Your task to perform on an android device: empty trash in the gmail app Image 0: 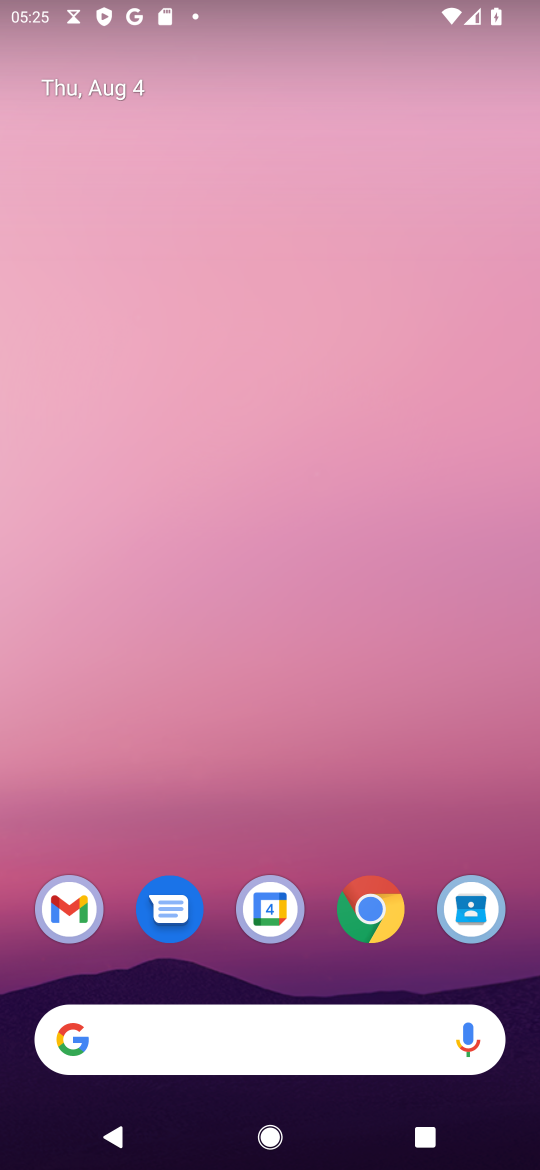
Step 0: click (67, 909)
Your task to perform on an android device: empty trash in the gmail app Image 1: 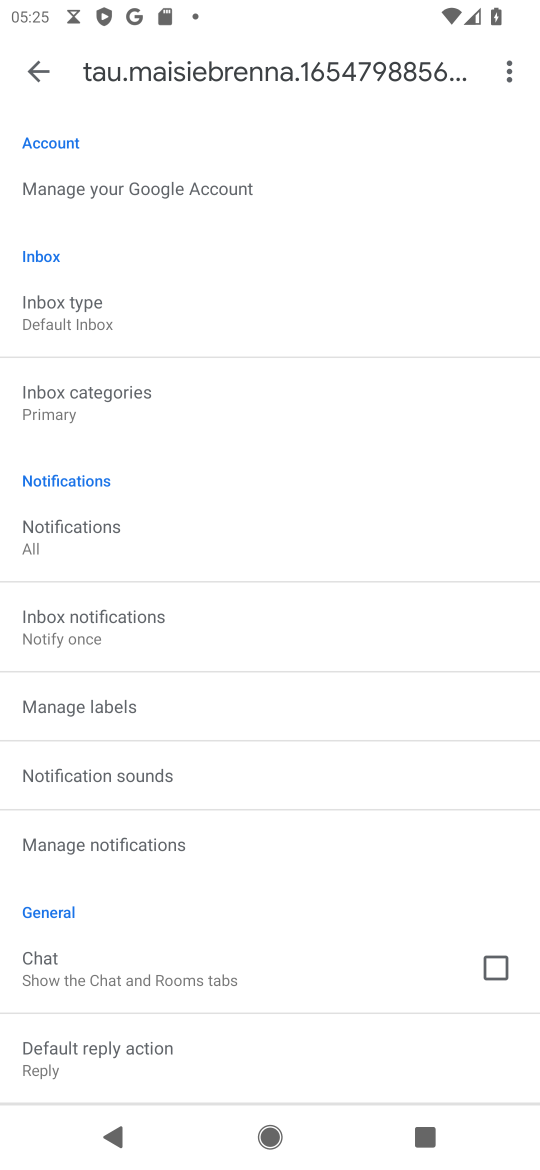
Step 1: click (49, 69)
Your task to perform on an android device: empty trash in the gmail app Image 2: 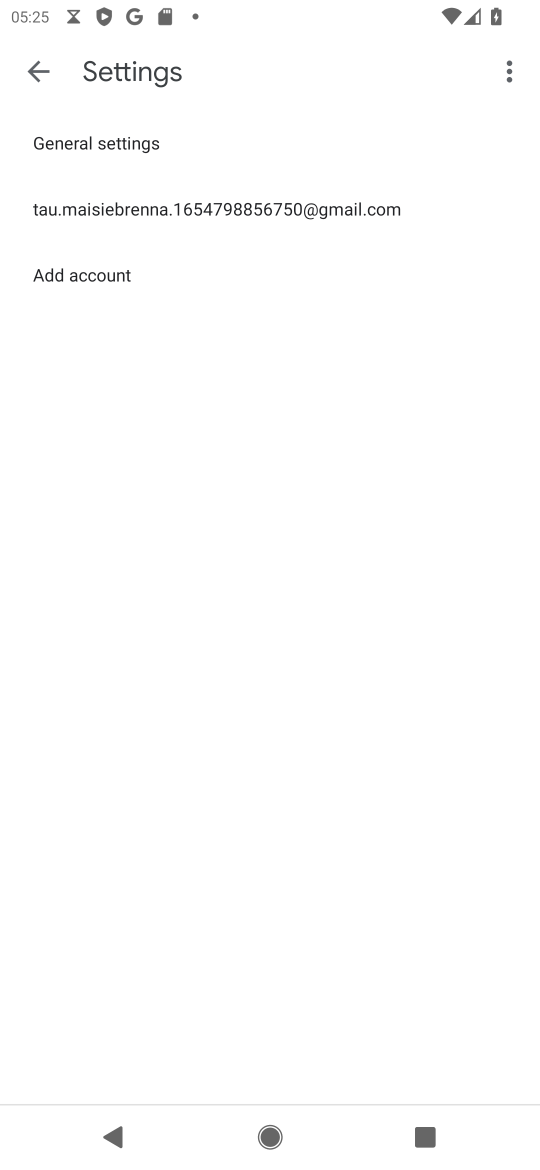
Step 2: click (48, 69)
Your task to perform on an android device: empty trash in the gmail app Image 3: 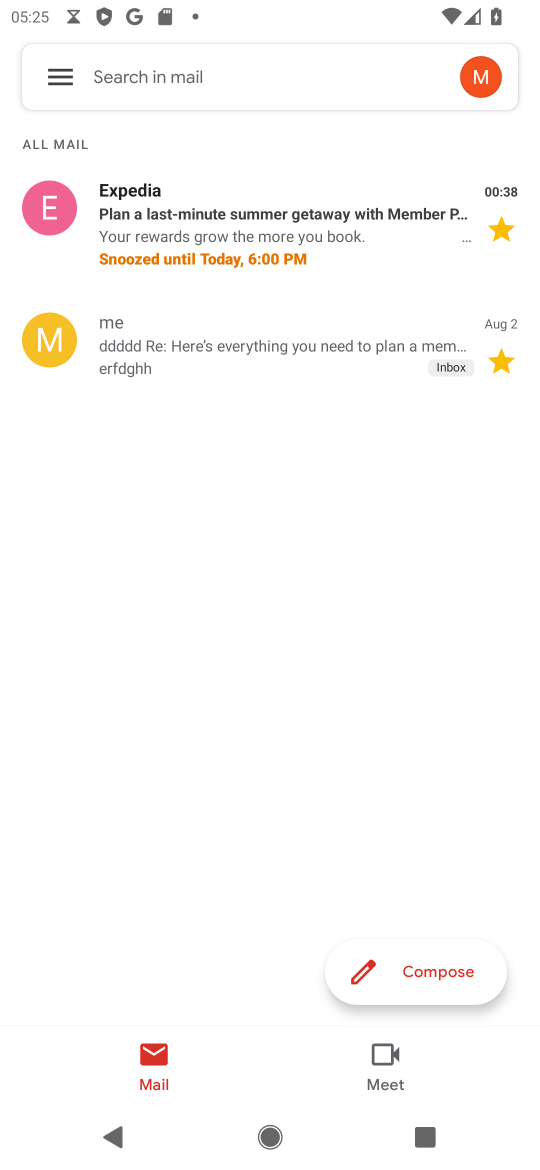
Step 3: click (48, 66)
Your task to perform on an android device: empty trash in the gmail app Image 4: 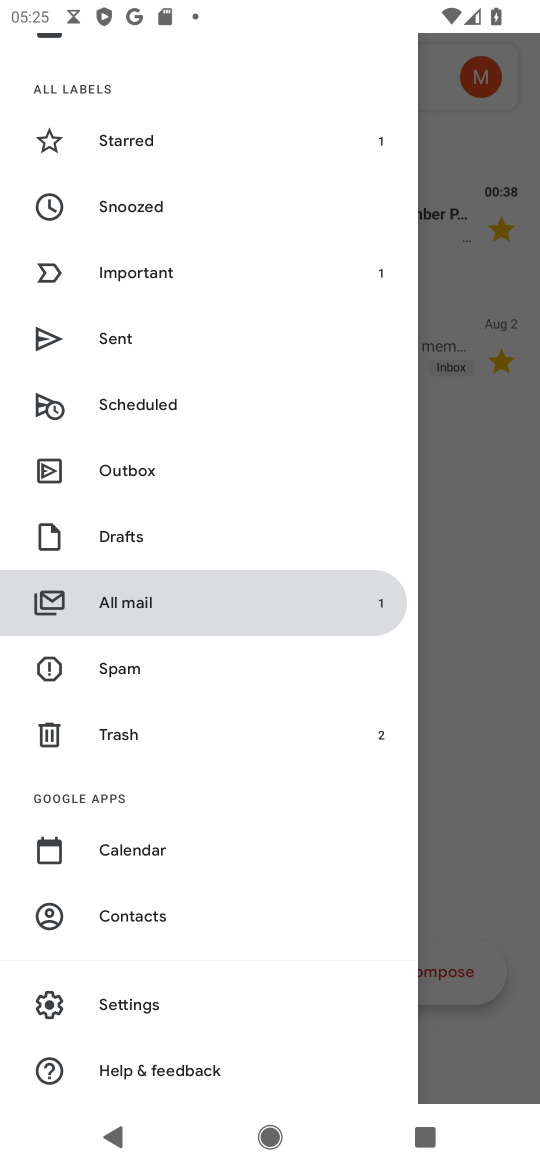
Step 4: click (145, 733)
Your task to perform on an android device: empty trash in the gmail app Image 5: 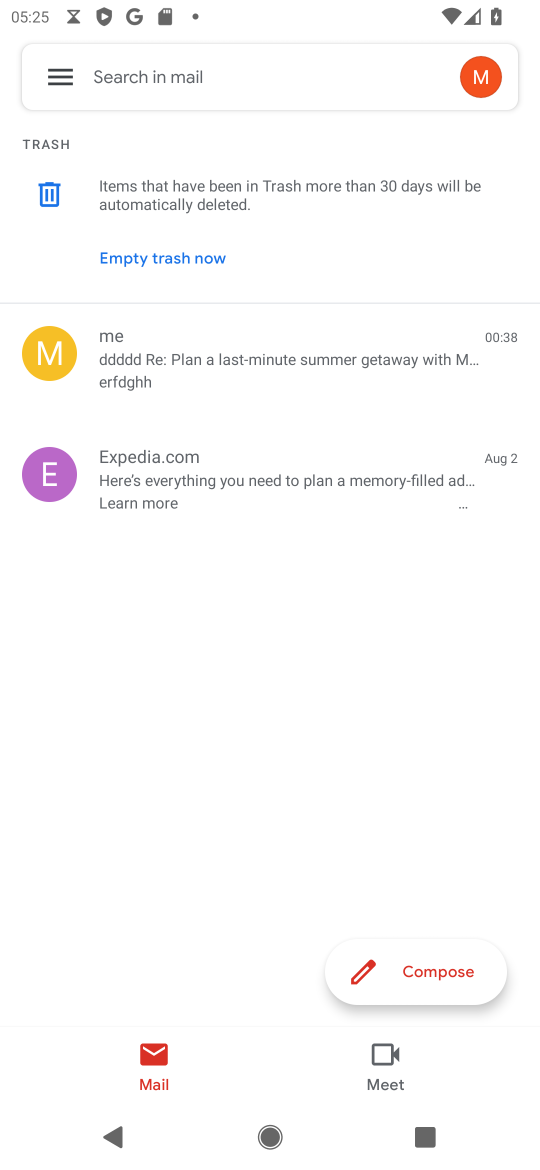
Step 5: click (123, 264)
Your task to perform on an android device: empty trash in the gmail app Image 6: 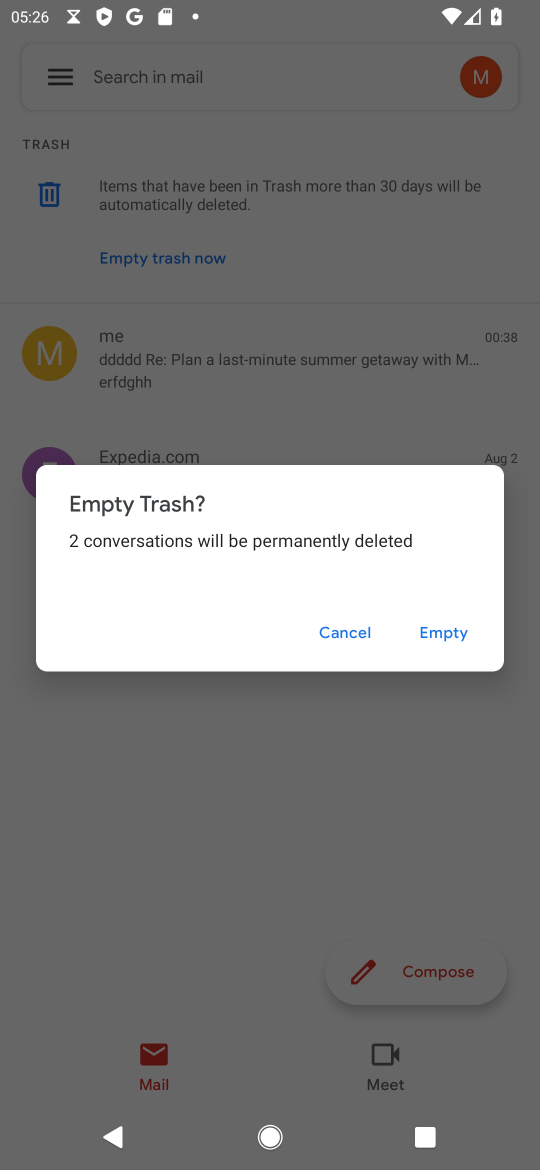
Step 6: click (446, 623)
Your task to perform on an android device: empty trash in the gmail app Image 7: 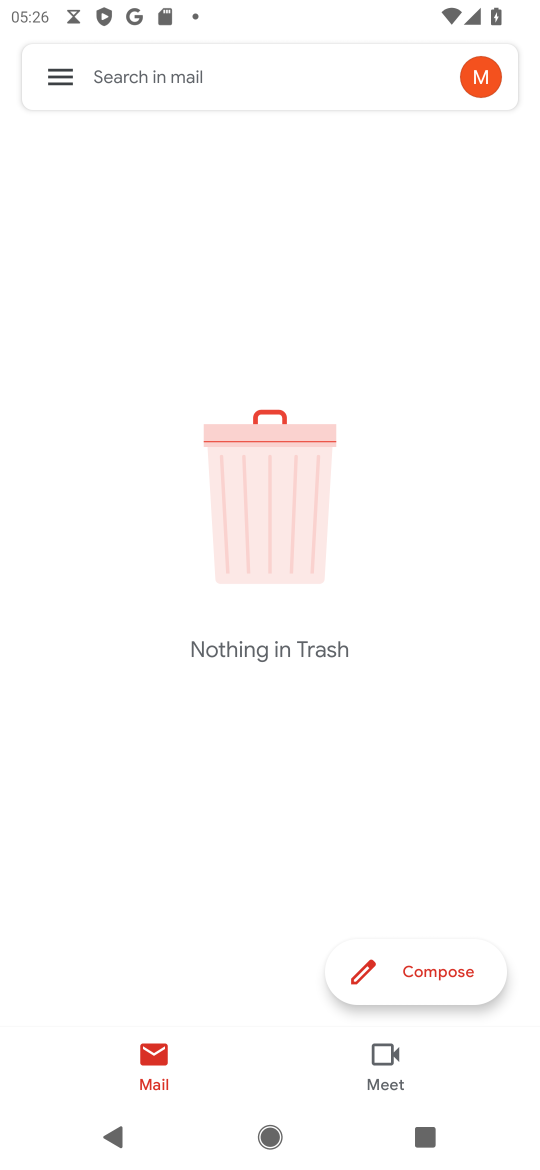
Step 7: task complete